Your task to perform on an android device: toggle notification dots Image 0: 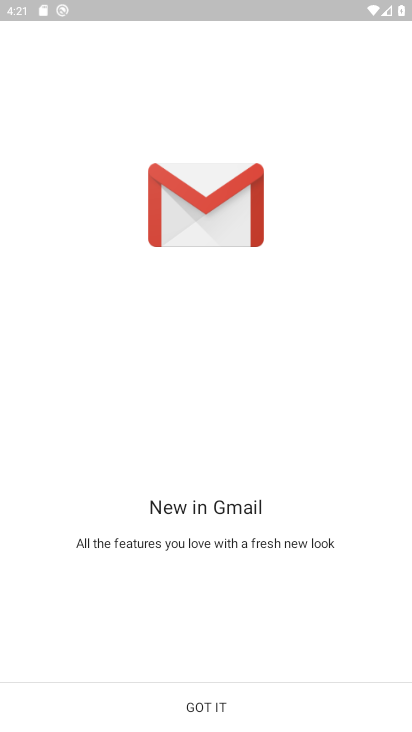
Step 0: press home button
Your task to perform on an android device: toggle notification dots Image 1: 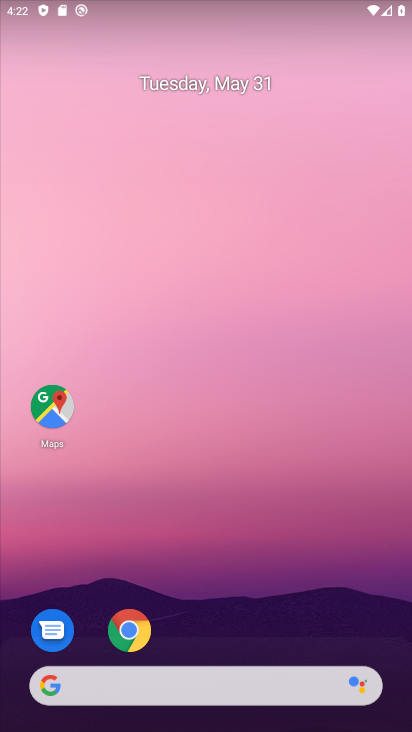
Step 1: drag from (237, 462) to (295, 93)
Your task to perform on an android device: toggle notification dots Image 2: 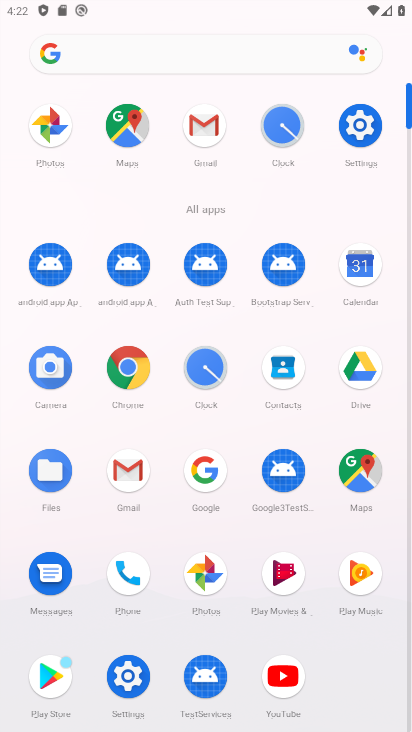
Step 2: drag from (194, 649) to (245, 393)
Your task to perform on an android device: toggle notification dots Image 3: 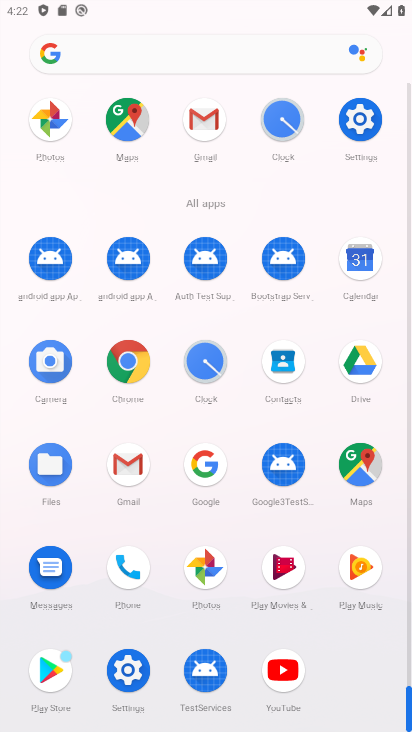
Step 3: click (127, 667)
Your task to perform on an android device: toggle notification dots Image 4: 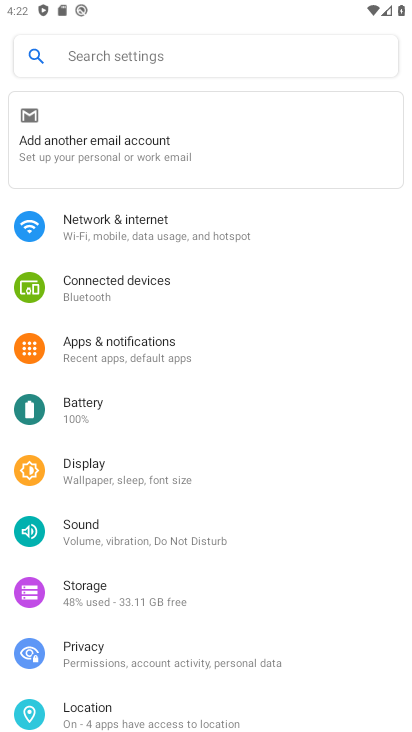
Step 4: click (158, 359)
Your task to perform on an android device: toggle notification dots Image 5: 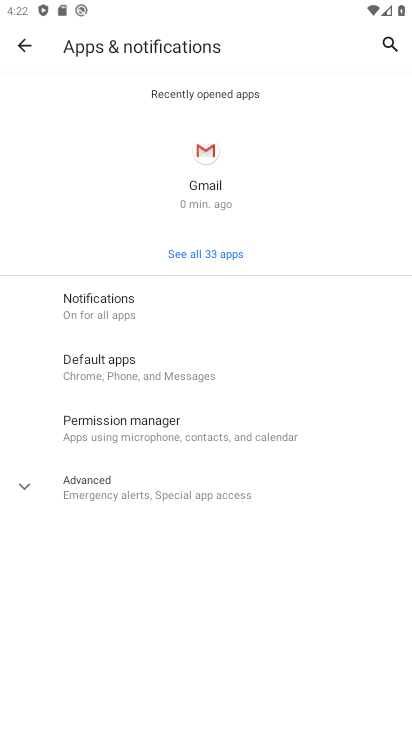
Step 5: click (172, 318)
Your task to perform on an android device: toggle notification dots Image 6: 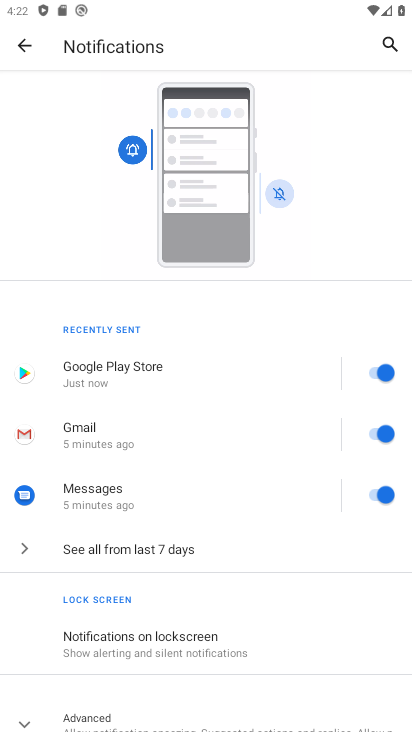
Step 6: drag from (205, 631) to (308, 309)
Your task to perform on an android device: toggle notification dots Image 7: 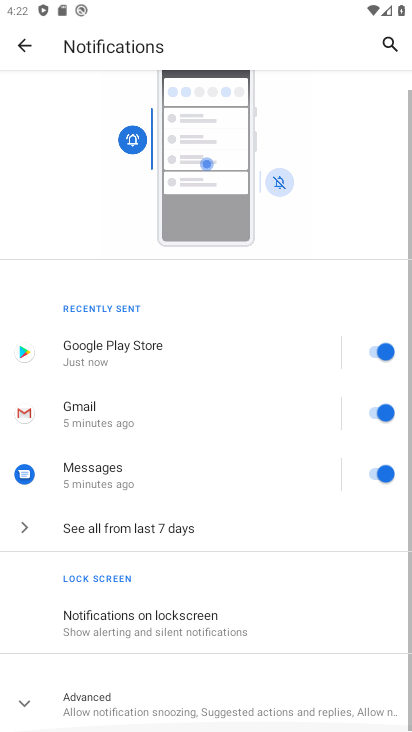
Step 7: click (184, 696)
Your task to perform on an android device: toggle notification dots Image 8: 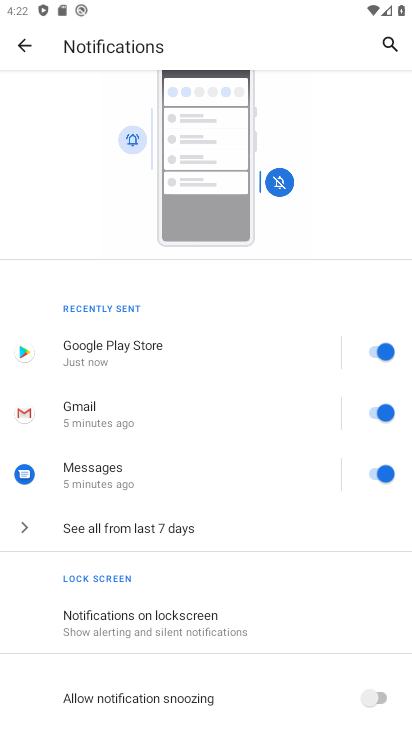
Step 8: drag from (185, 690) to (252, 360)
Your task to perform on an android device: toggle notification dots Image 9: 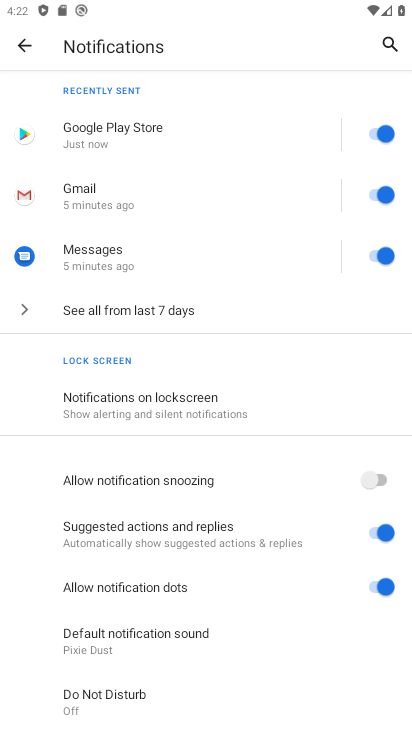
Step 9: click (376, 590)
Your task to perform on an android device: toggle notification dots Image 10: 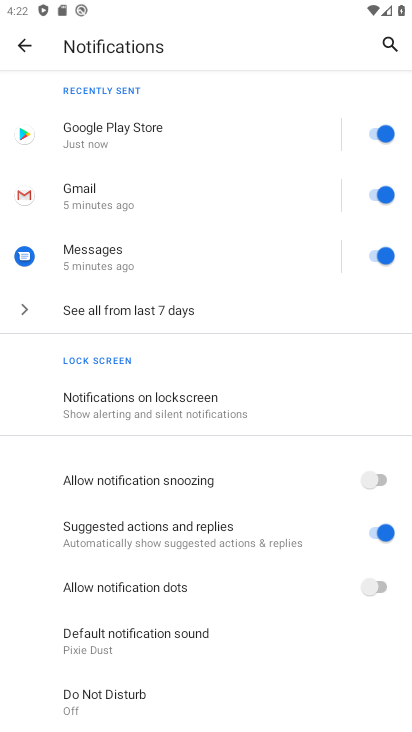
Step 10: task complete